Your task to perform on an android device: turn on location history Image 0: 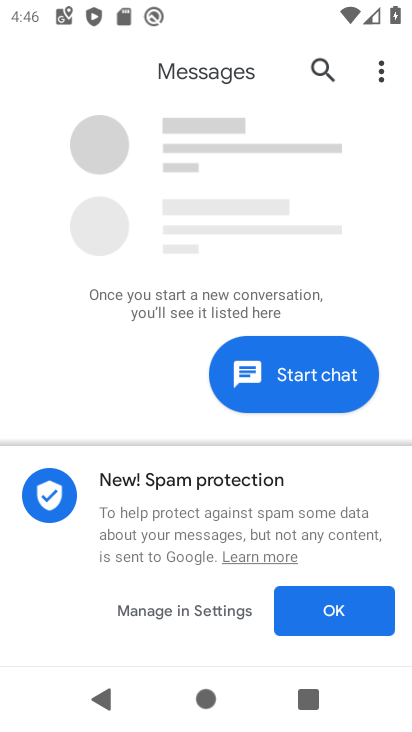
Step 0: press home button
Your task to perform on an android device: turn on location history Image 1: 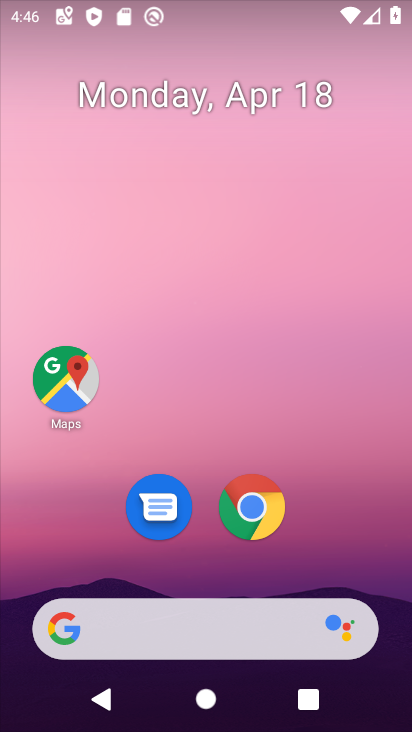
Step 1: drag from (259, 580) to (324, 6)
Your task to perform on an android device: turn on location history Image 2: 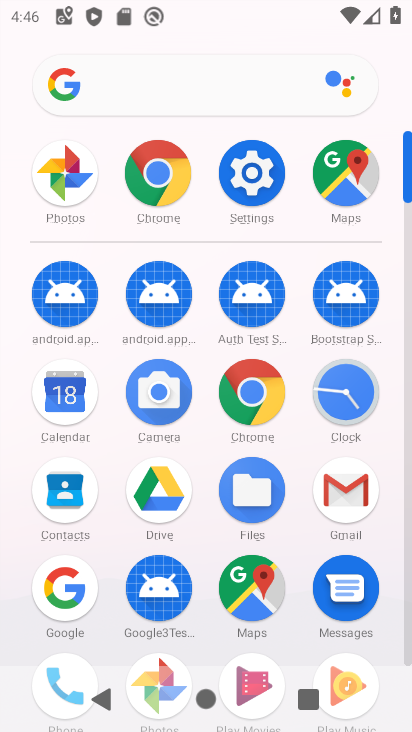
Step 2: click (252, 187)
Your task to perform on an android device: turn on location history Image 3: 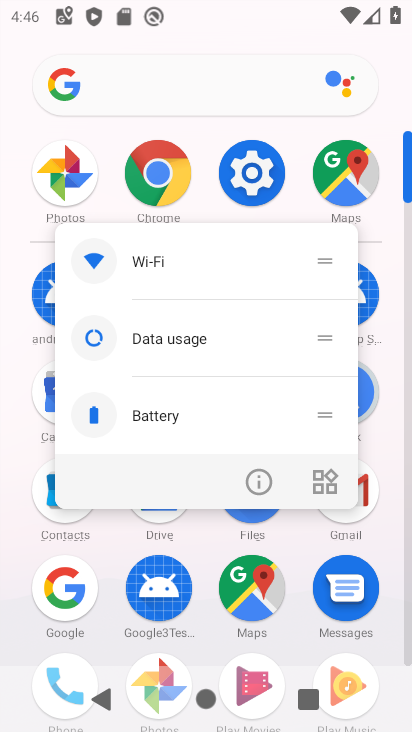
Step 3: click (261, 187)
Your task to perform on an android device: turn on location history Image 4: 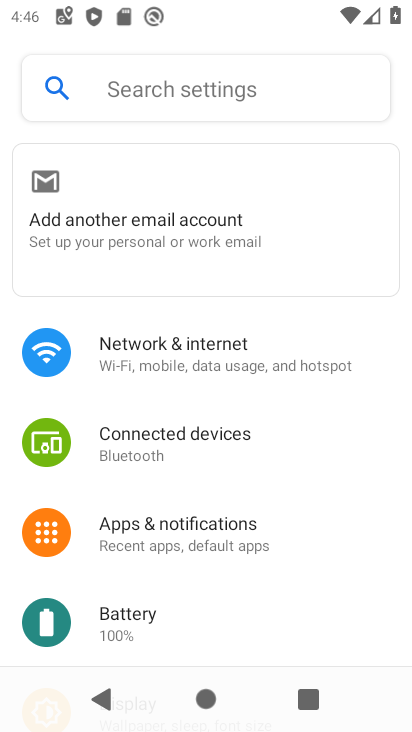
Step 4: drag from (231, 607) to (203, 91)
Your task to perform on an android device: turn on location history Image 5: 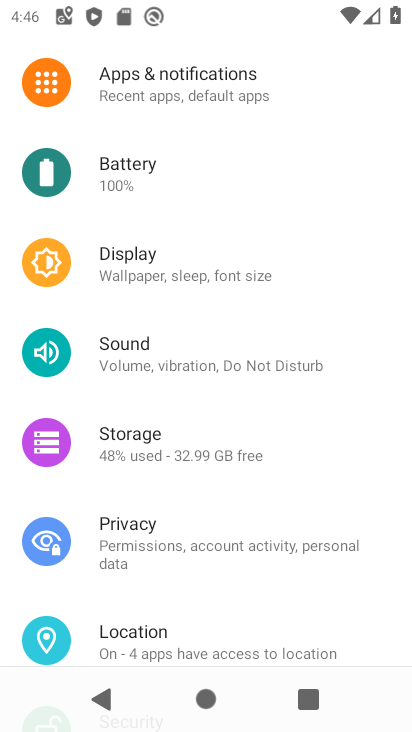
Step 5: click (141, 644)
Your task to perform on an android device: turn on location history Image 6: 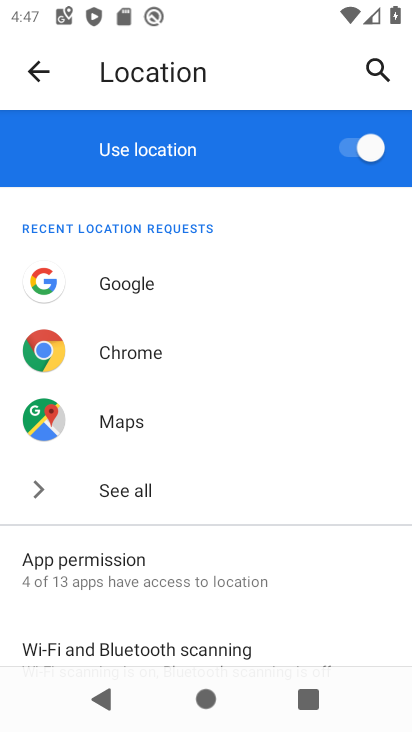
Step 6: drag from (267, 615) to (293, 311)
Your task to perform on an android device: turn on location history Image 7: 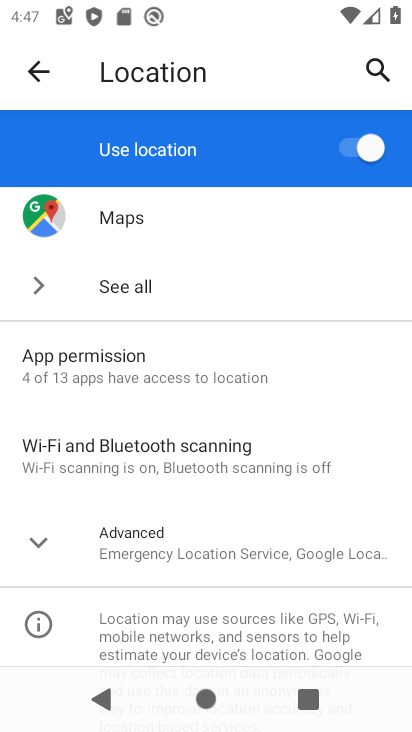
Step 7: click (265, 359)
Your task to perform on an android device: turn on location history Image 8: 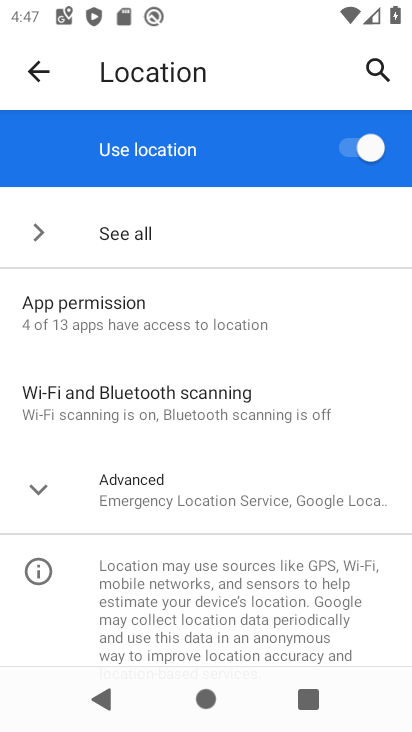
Step 8: drag from (232, 352) to (238, 663)
Your task to perform on an android device: turn on location history Image 9: 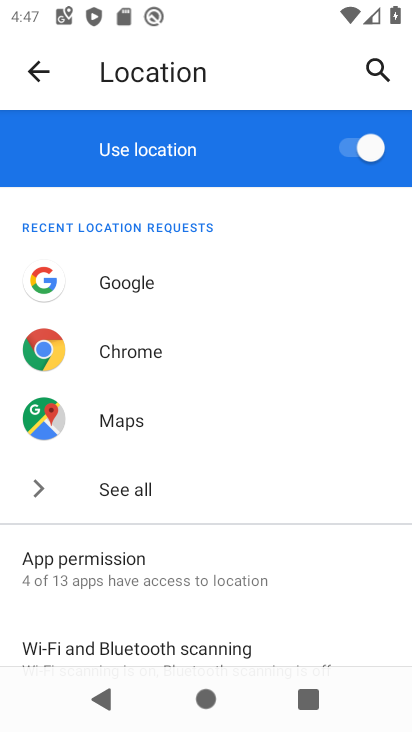
Step 9: drag from (205, 407) to (188, 624)
Your task to perform on an android device: turn on location history Image 10: 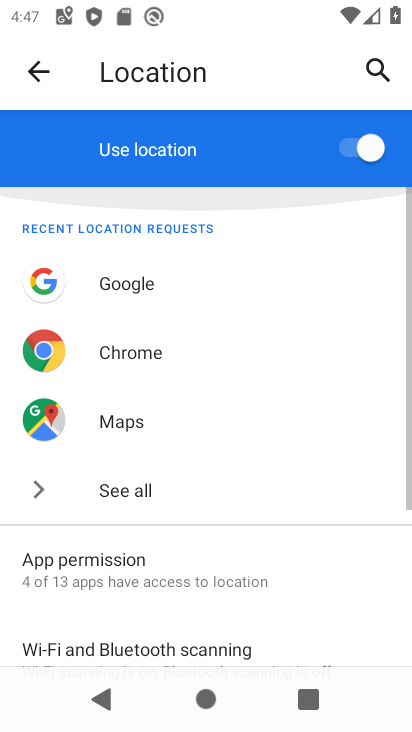
Step 10: drag from (191, 595) to (228, 308)
Your task to perform on an android device: turn on location history Image 11: 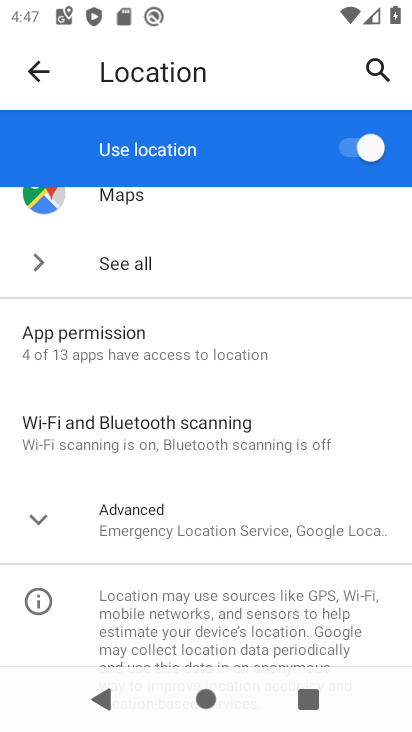
Step 11: click (159, 514)
Your task to perform on an android device: turn on location history Image 12: 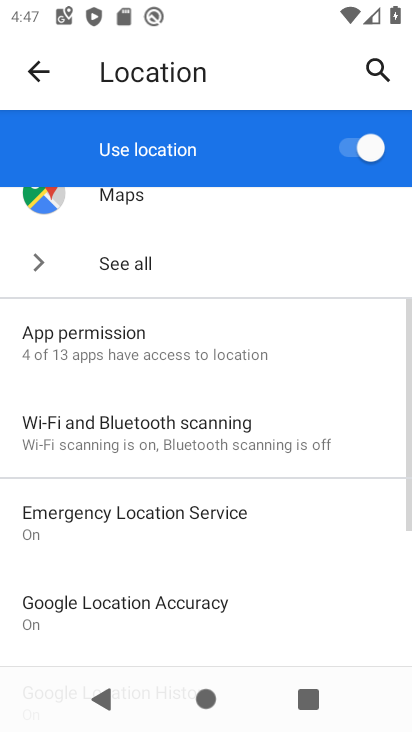
Step 12: drag from (206, 637) to (212, 267)
Your task to perform on an android device: turn on location history Image 13: 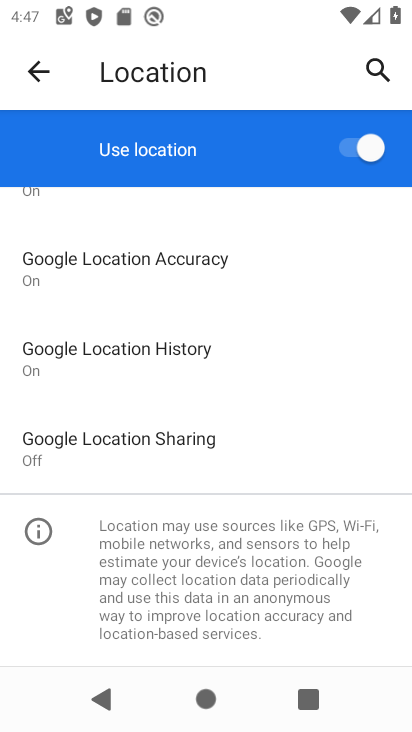
Step 13: click (136, 359)
Your task to perform on an android device: turn on location history Image 14: 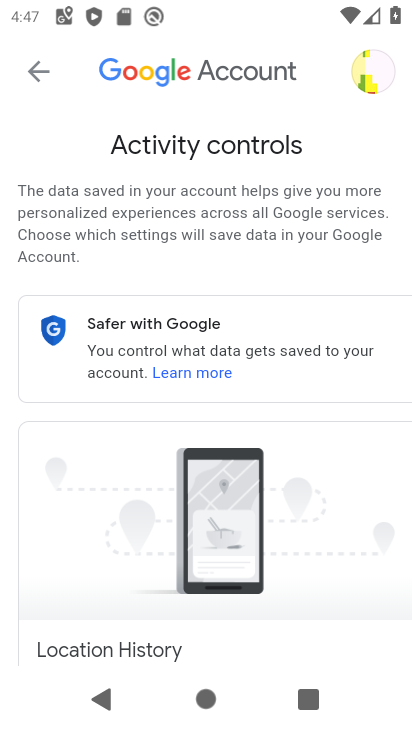
Step 14: drag from (263, 542) to (347, 70)
Your task to perform on an android device: turn on location history Image 15: 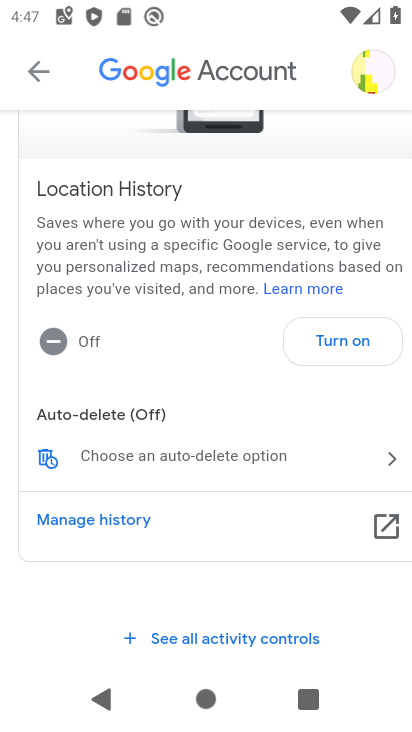
Step 15: drag from (309, 518) to (356, 134)
Your task to perform on an android device: turn on location history Image 16: 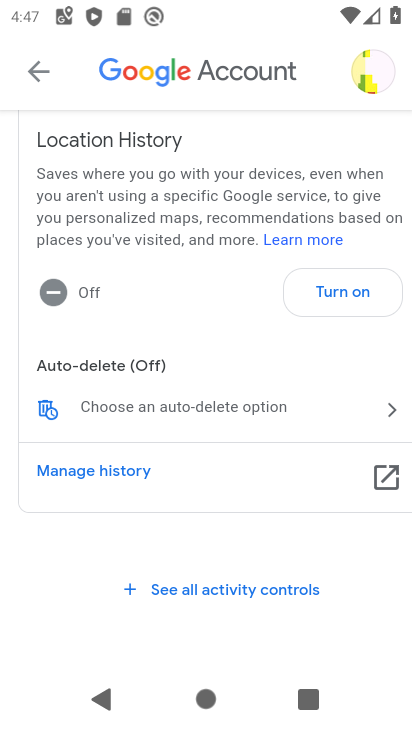
Step 16: click (319, 293)
Your task to perform on an android device: turn on location history Image 17: 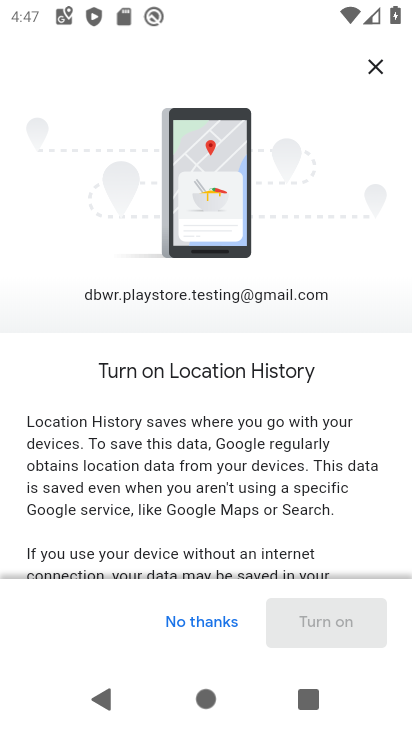
Step 17: drag from (329, 527) to (373, 41)
Your task to perform on an android device: turn on location history Image 18: 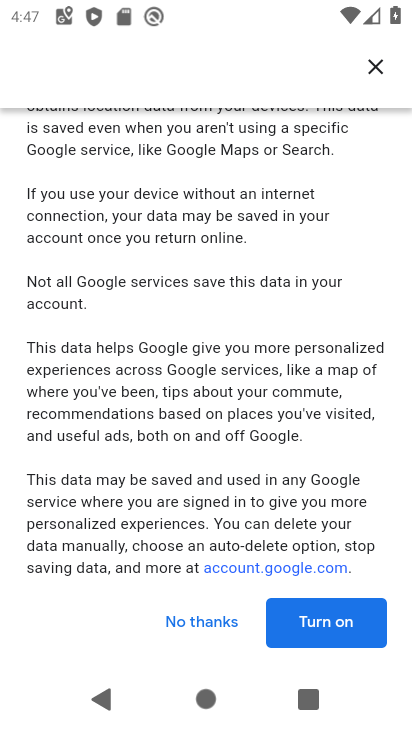
Step 18: drag from (306, 544) to (305, 107)
Your task to perform on an android device: turn on location history Image 19: 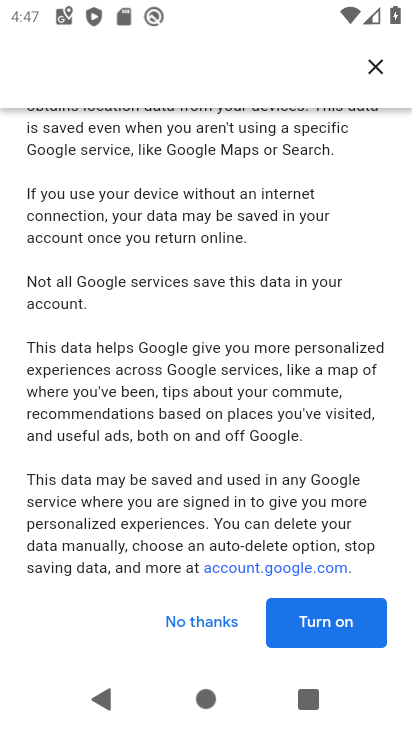
Step 19: click (290, 623)
Your task to perform on an android device: turn on location history Image 20: 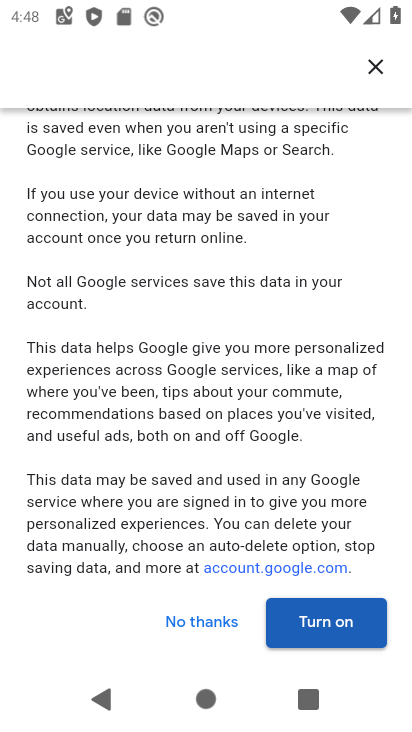
Step 20: click (314, 620)
Your task to perform on an android device: turn on location history Image 21: 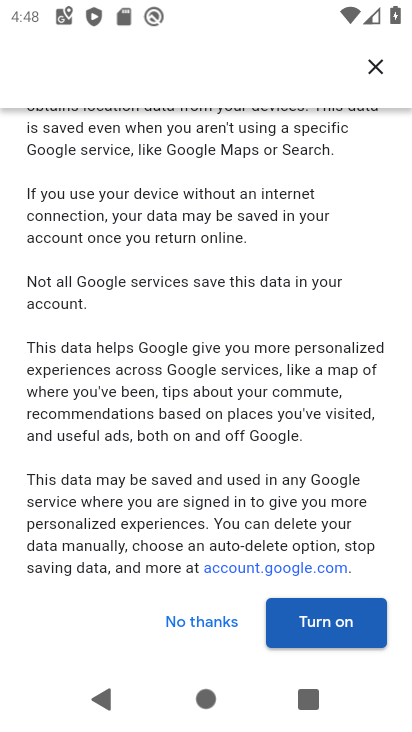
Step 21: click (334, 613)
Your task to perform on an android device: turn on location history Image 22: 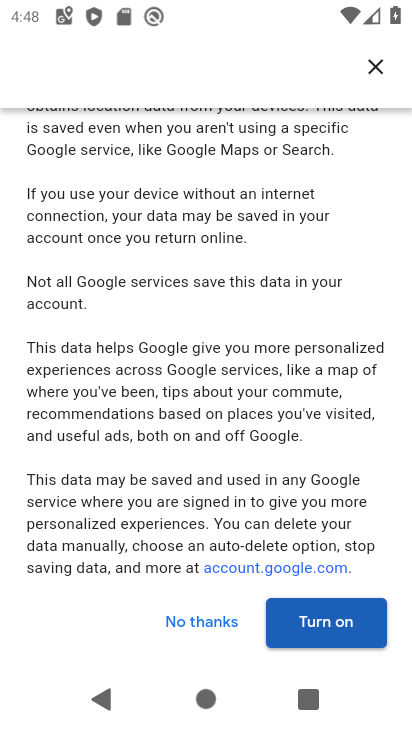
Step 22: click (334, 613)
Your task to perform on an android device: turn on location history Image 23: 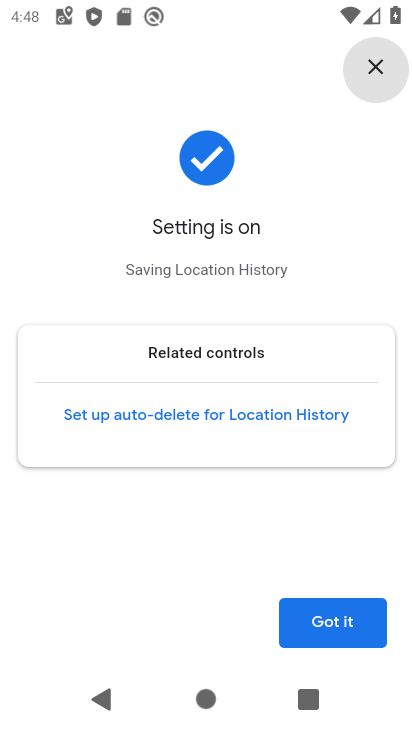
Step 23: task complete